Your task to perform on an android device: Open Google Image 0: 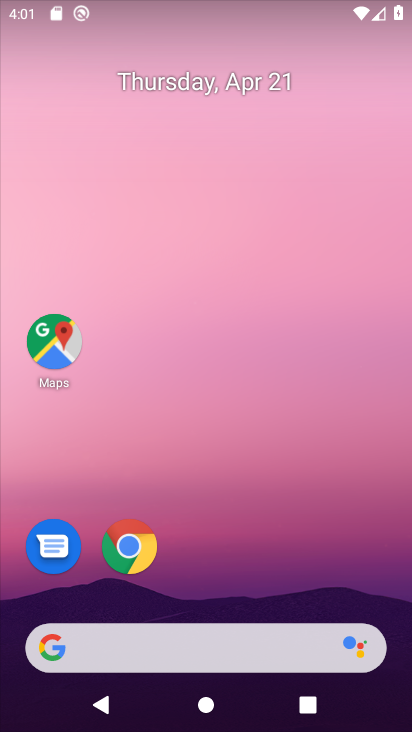
Step 0: click (55, 644)
Your task to perform on an android device: Open Google Image 1: 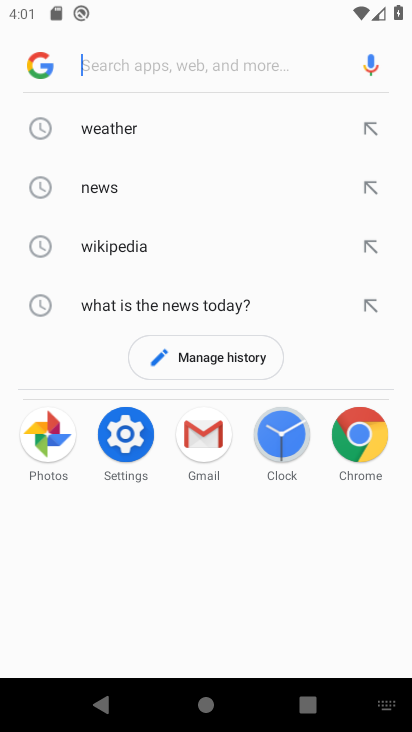
Step 1: task complete